Your task to perform on an android device: turn on airplane mode Image 0: 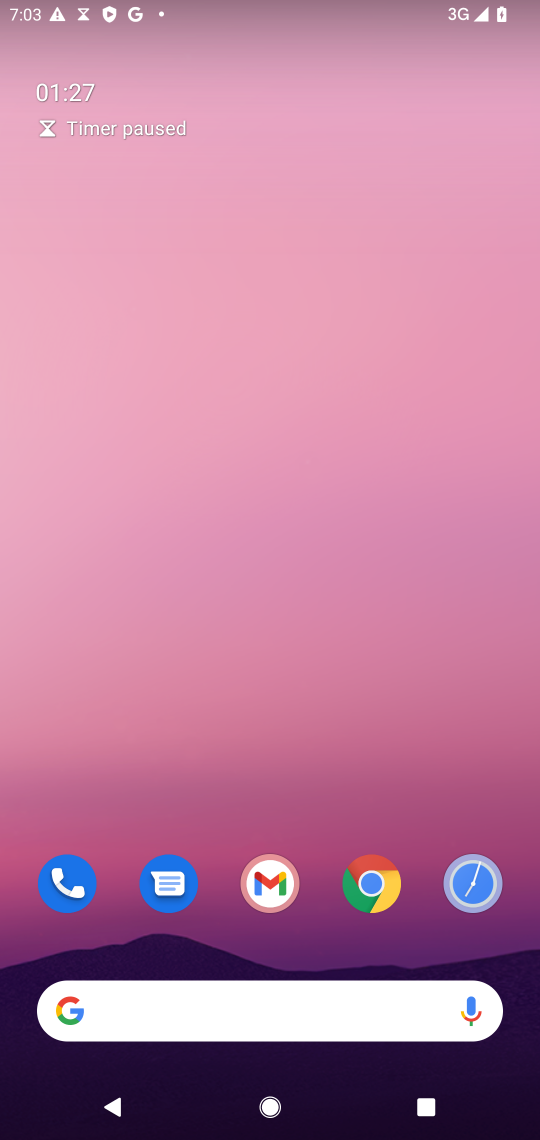
Step 0: drag from (294, 1025) to (356, 321)
Your task to perform on an android device: turn on airplane mode Image 1: 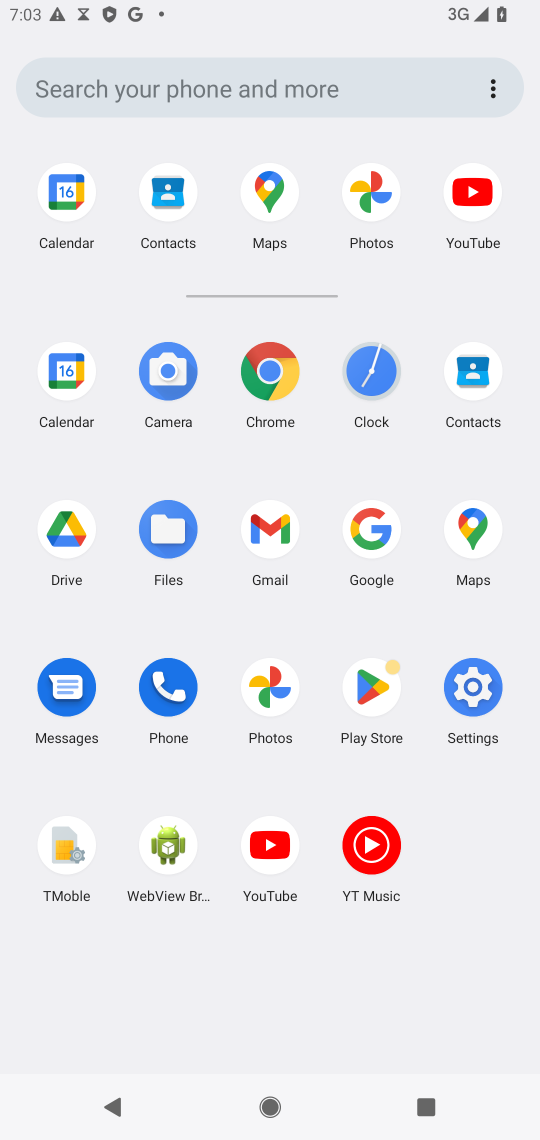
Step 1: click (472, 687)
Your task to perform on an android device: turn on airplane mode Image 2: 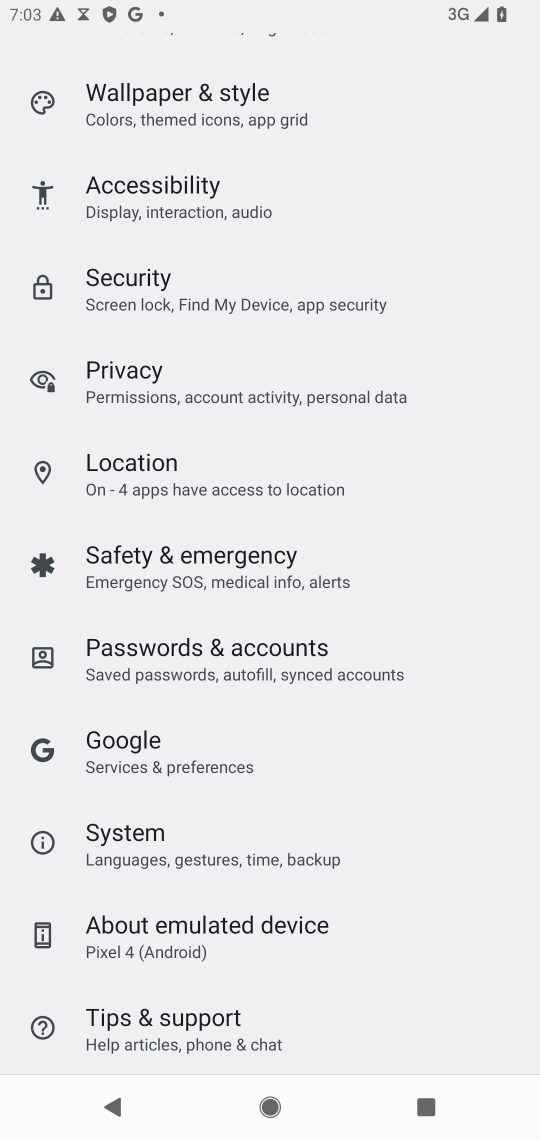
Step 2: drag from (296, 306) to (281, 528)
Your task to perform on an android device: turn on airplane mode Image 3: 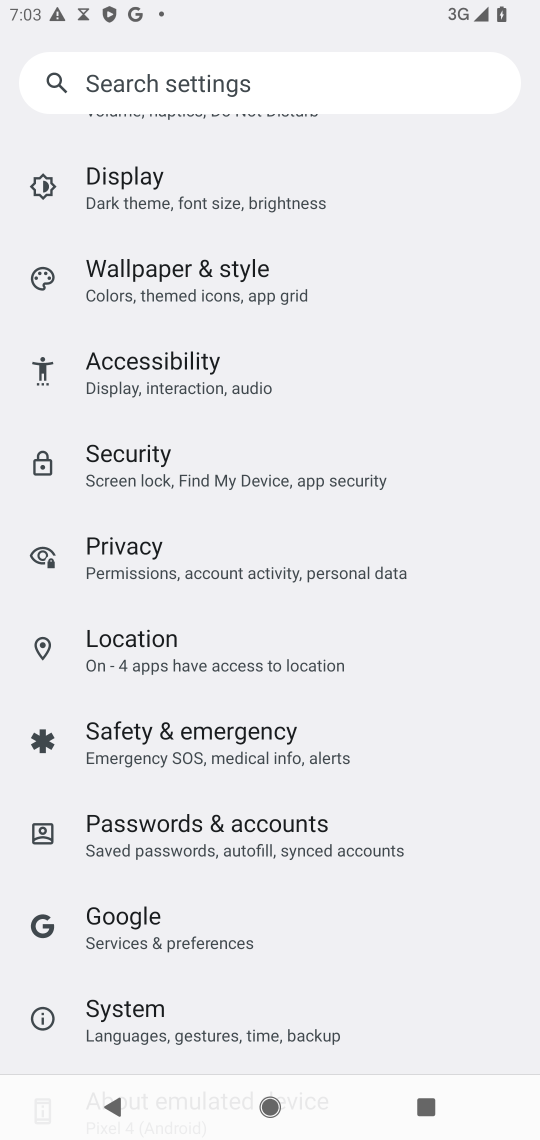
Step 3: drag from (246, 239) to (237, 488)
Your task to perform on an android device: turn on airplane mode Image 4: 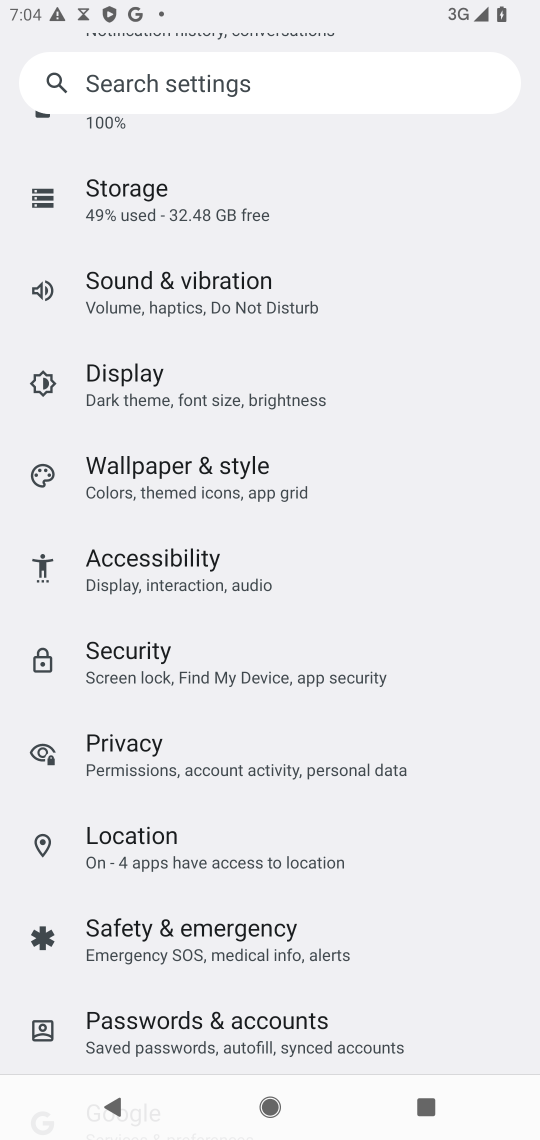
Step 4: drag from (216, 527) to (187, 615)
Your task to perform on an android device: turn on airplane mode Image 5: 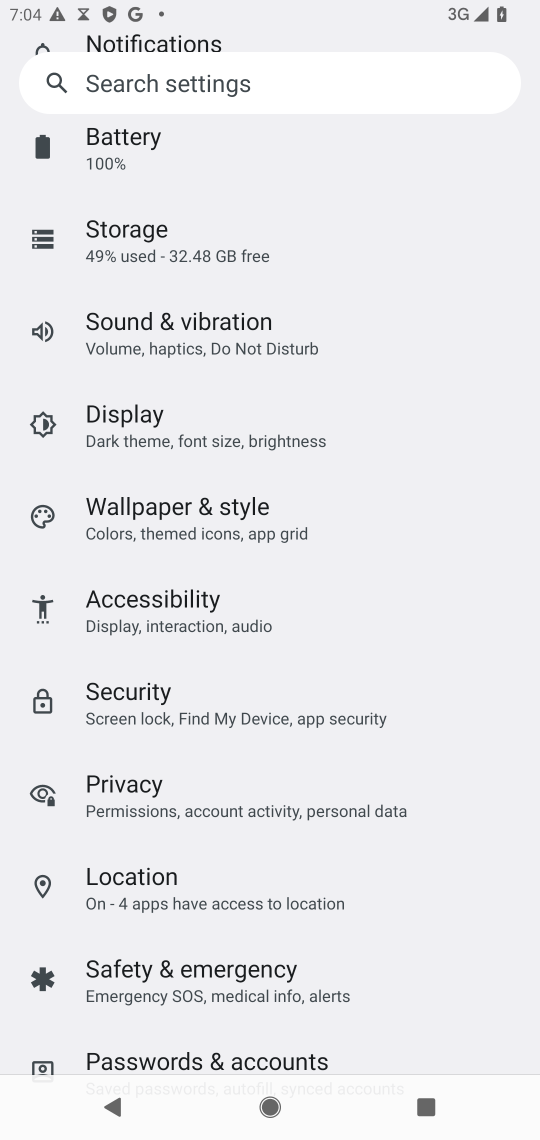
Step 5: drag from (197, 305) to (189, 514)
Your task to perform on an android device: turn on airplane mode Image 6: 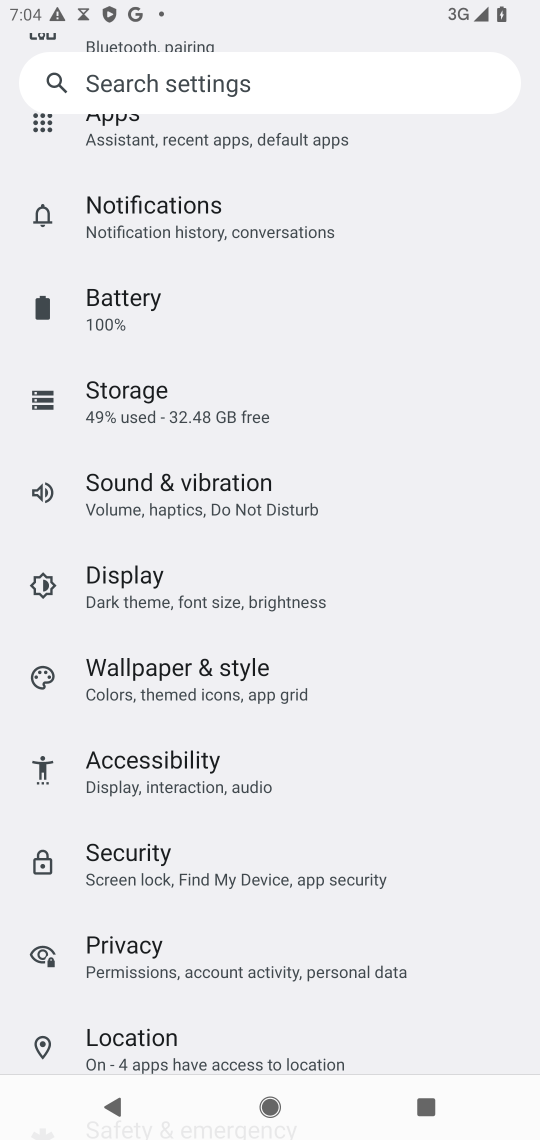
Step 6: drag from (224, 331) to (259, 504)
Your task to perform on an android device: turn on airplane mode Image 7: 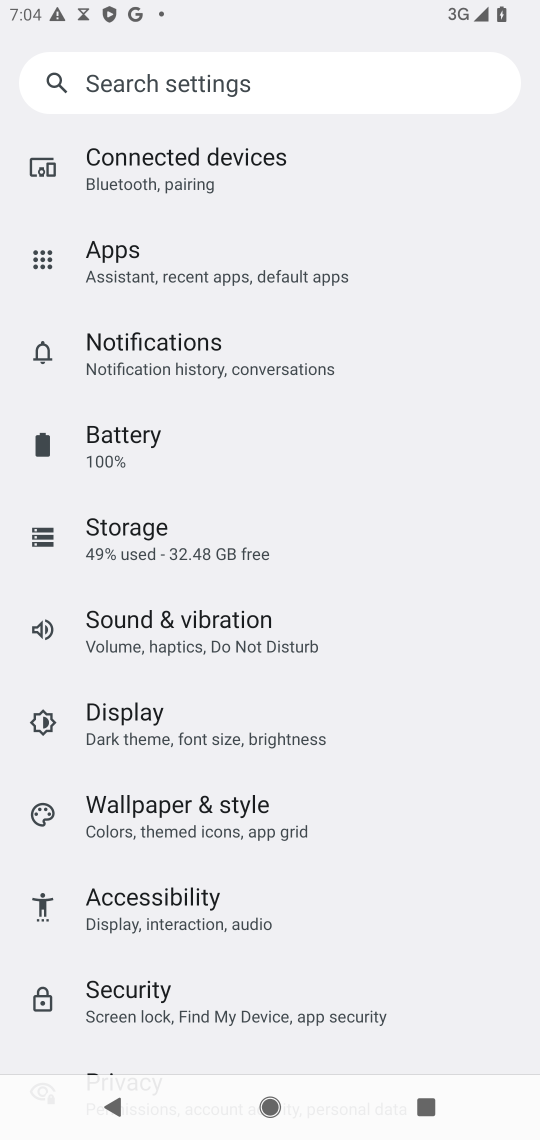
Step 7: drag from (219, 251) to (243, 497)
Your task to perform on an android device: turn on airplane mode Image 8: 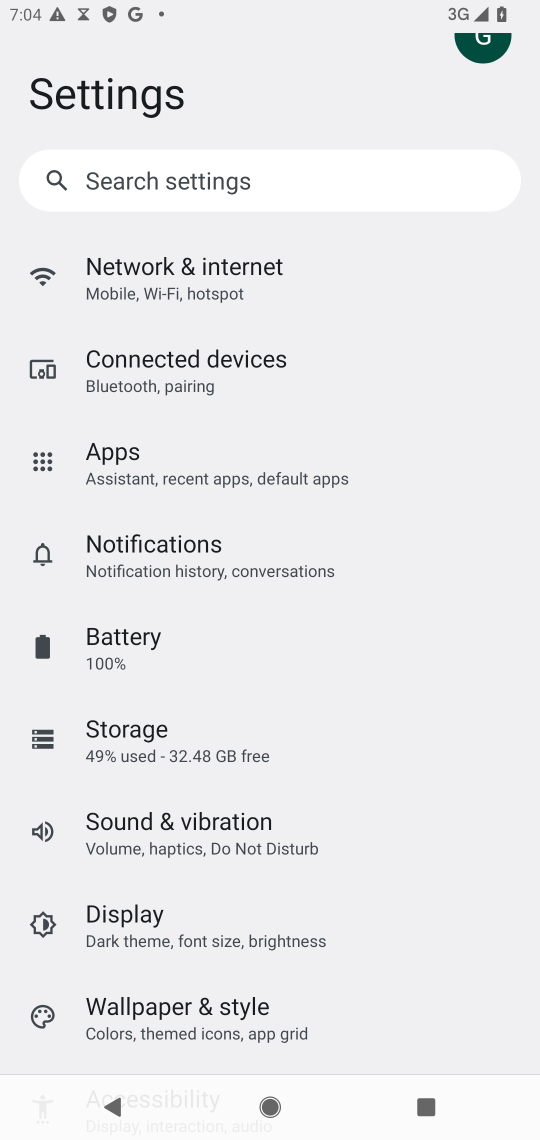
Step 8: click (194, 301)
Your task to perform on an android device: turn on airplane mode Image 9: 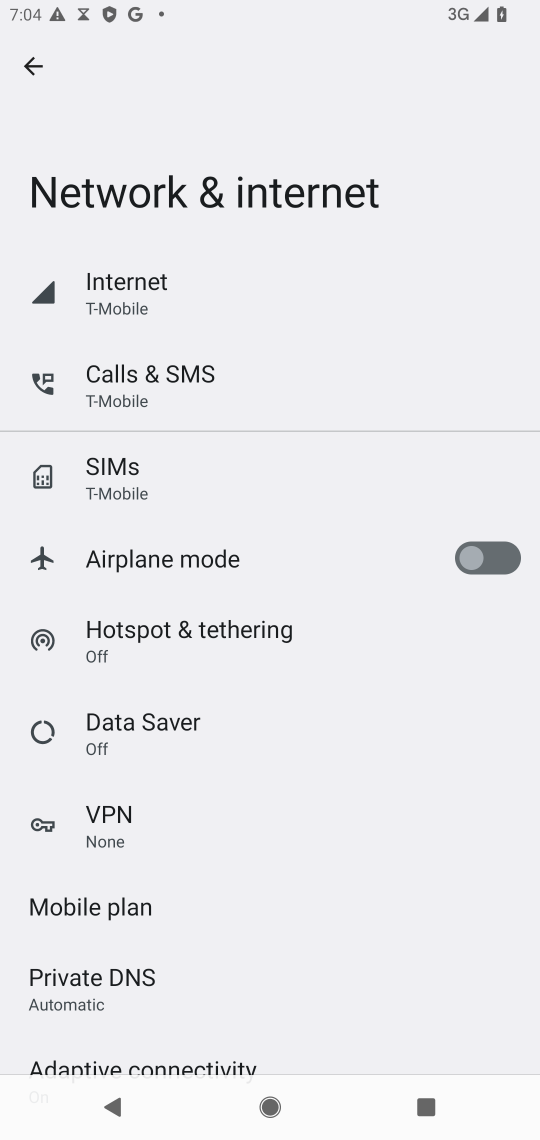
Step 9: click (477, 561)
Your task to perform on an android device: turn on airplane mode Image 10: 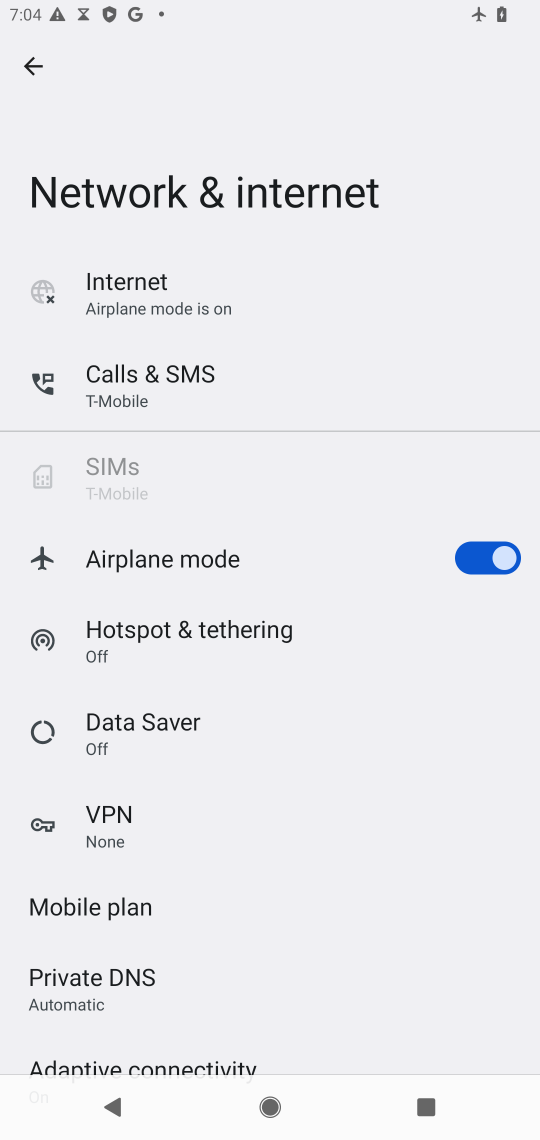
Step 10: task complete